Your task to perform on an android device: delete the emails in spam in the gmail app Image 0: 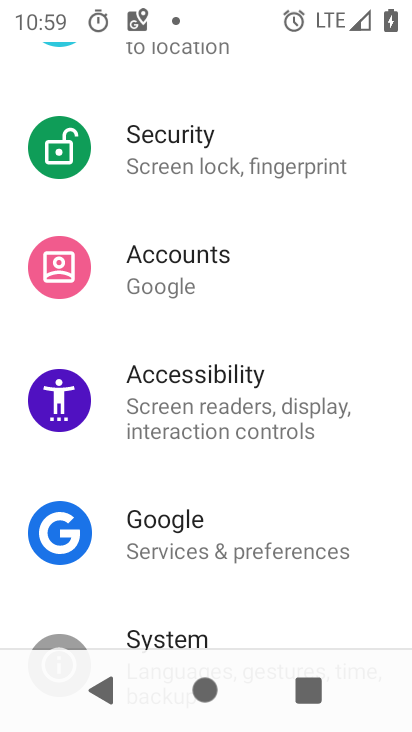
Step 0: press home button
Your task to perform on an android device: delete the emails in spam in the gmail app Image 1: 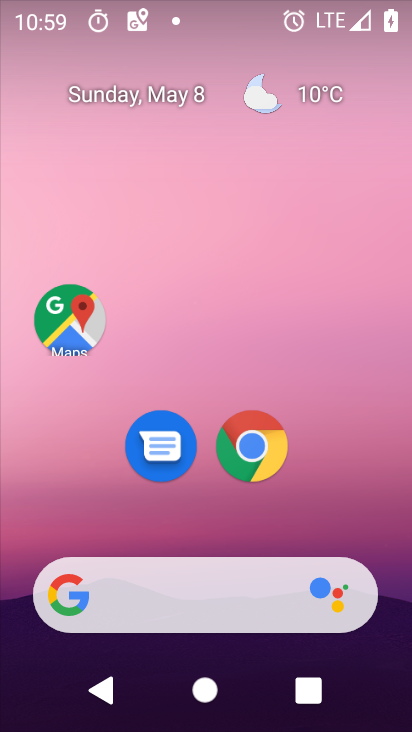
Step 1: drag from (369, 537) to (392, 0)
Your task to perform on an android device: delete the emails in spam in the gmail app Image 2: 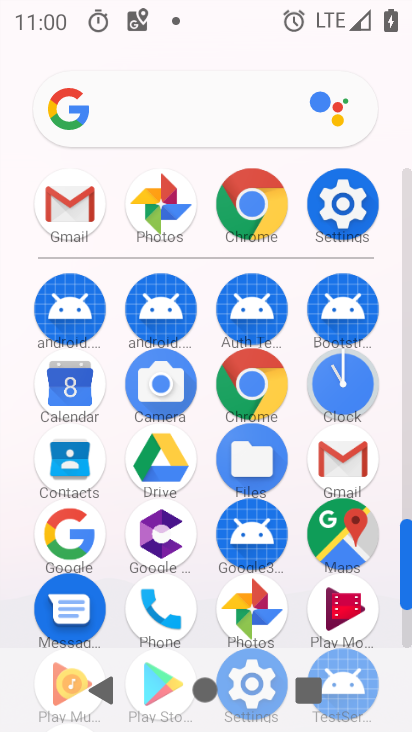
Step 2: click (67, 217)
Your task to perform on an android device: delete the emails in spam in the gmail app Image 3: 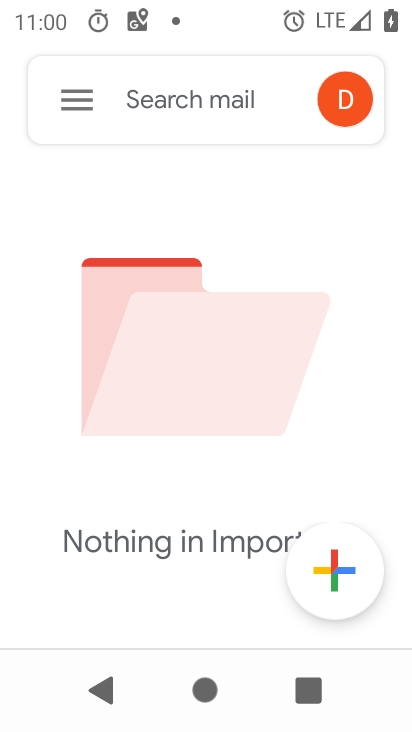
Step 3: click (83, 95)
Your task to perform on an android device: delete the emails in spam in the gmail app Image 4: 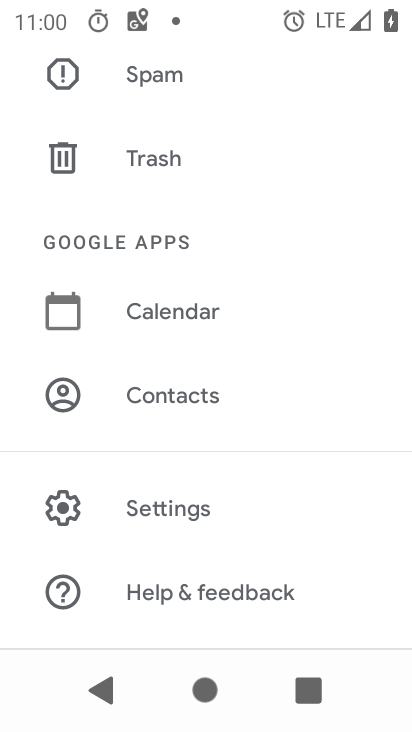
Step 4: drag from (254, 381) to (258, 454)
Your task to perform on an android device: delete the emails in spam in the gmail app Image 5: 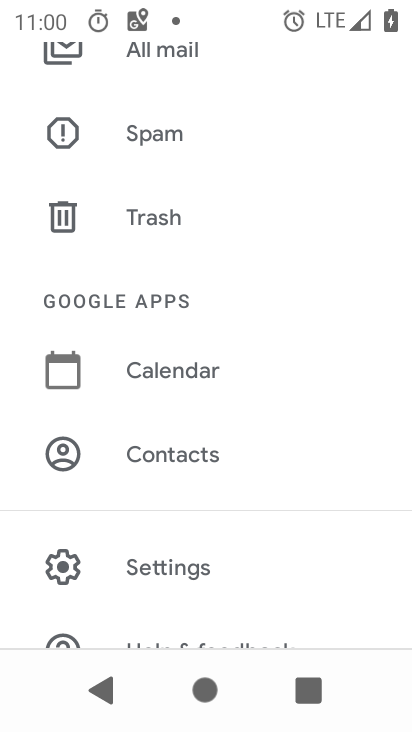
Step 5: click (151, 141)
Your task to perform on an android device: delete the emails in spam in the gmail app Image 6: 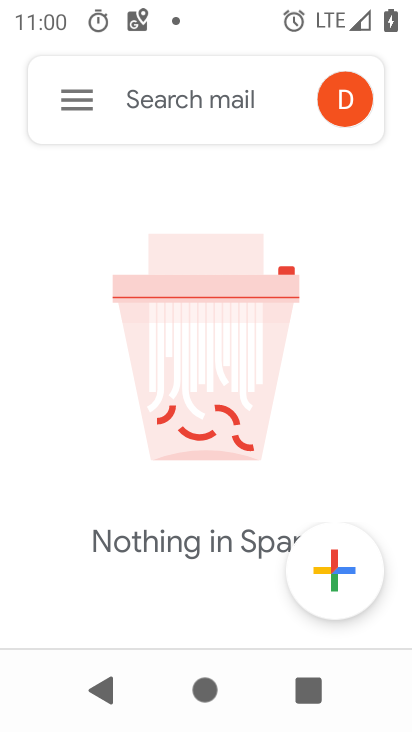
Step 6: task complete